Your task to perform on an android device: Search for Mexican restaurants on Maps Image 0: 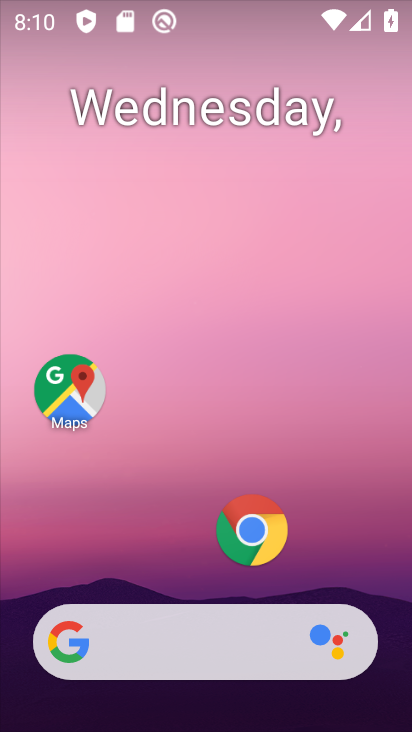
Step 0: click (66, 382)
Your task to perform on an android device: Search for Mexican restaurants on Maps Image 1: 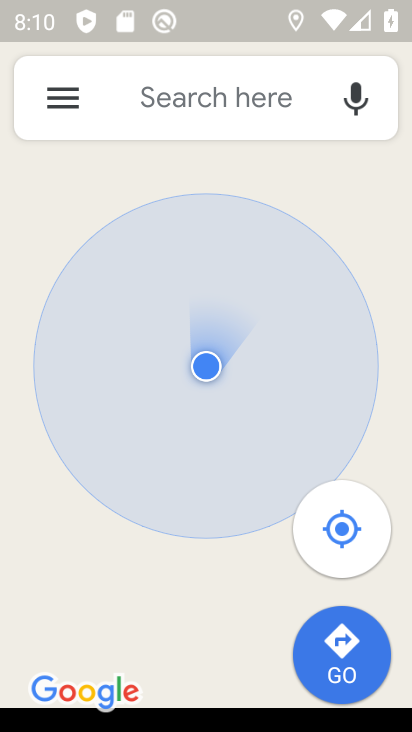
Step 1: click (167, 97)
Your task to perform on an android device: Search for Mexican restaurants on Maps Image 2: 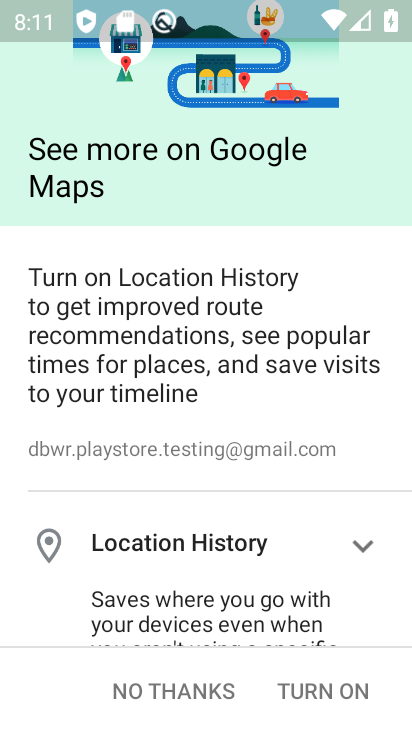
Step 2: click (145, 713)
Your task to perform on an android device: Search for Mexican restaurants on Maps Image 3: 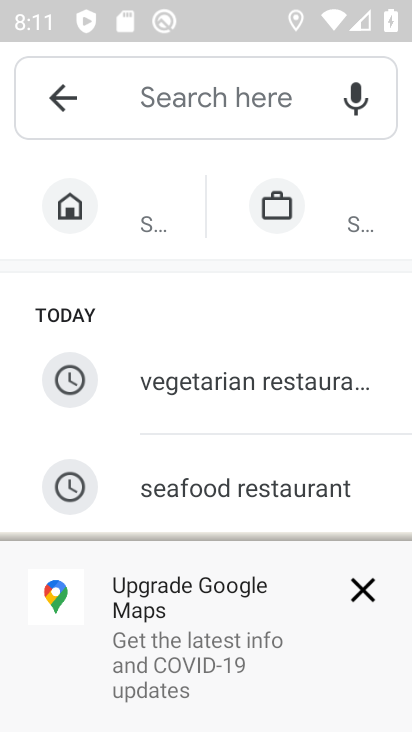
Step 3: drag from (170, 512) to (234, 105)
Your task to perform on an android device: Search for Mexican restaurants on Maps Image 4: 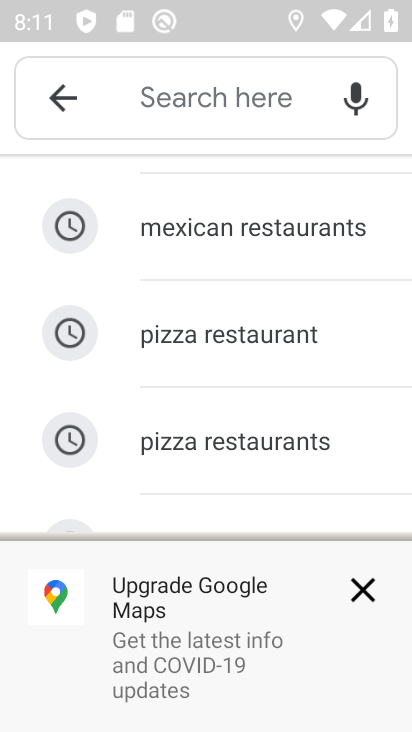
Step 4: drag from (223, 265) to (216, 450)
Your task to perform on an android device: Search for Mexican restaurants on Maps Image 5: 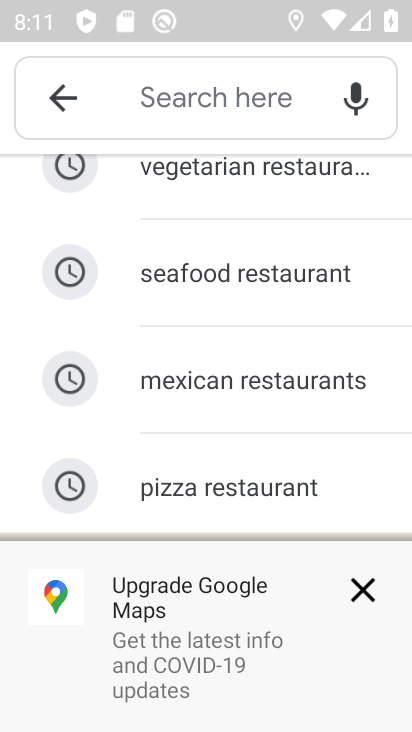
Step 5: click (212, 378)
Your task to perform on an android device: Search for Mexican restaurants on Maps Image 6: 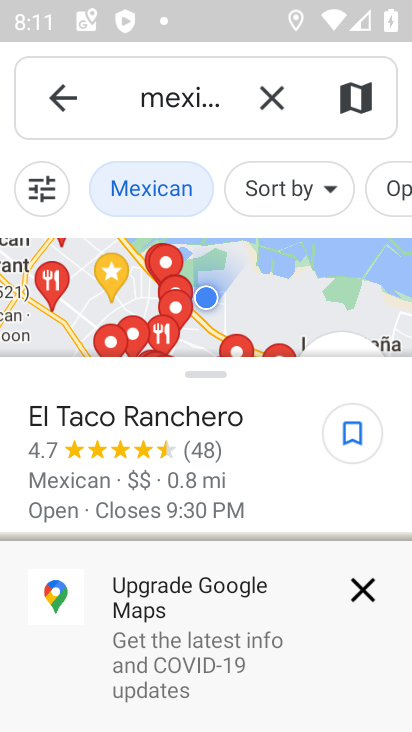
Step 6: task complete